Your task to perform on an android device: turn on javascript in the chrome app Image 0: 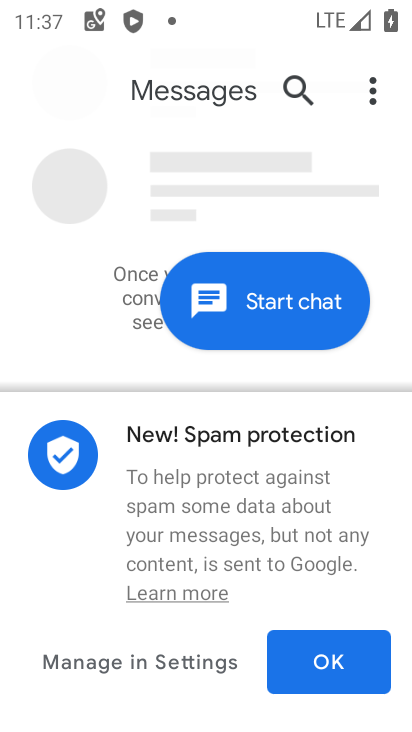
Step 0: press home button
Your task to perform on an android device: turn on javascript in the chrome app Image 1: 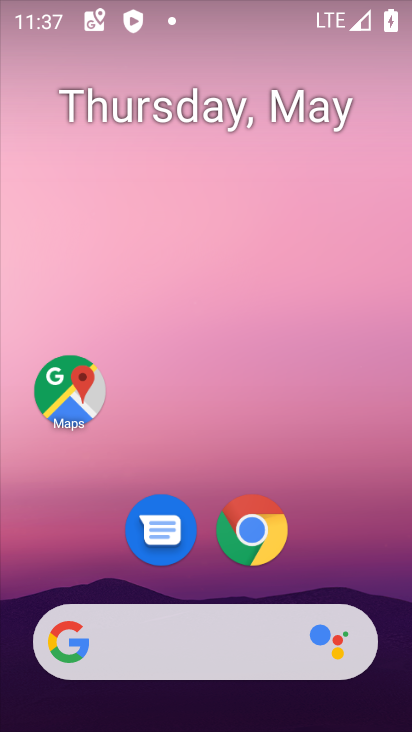
Step 1: click (259, 533)
Your task to perform on an android device: turn on javascript in the chrome app Image 2: 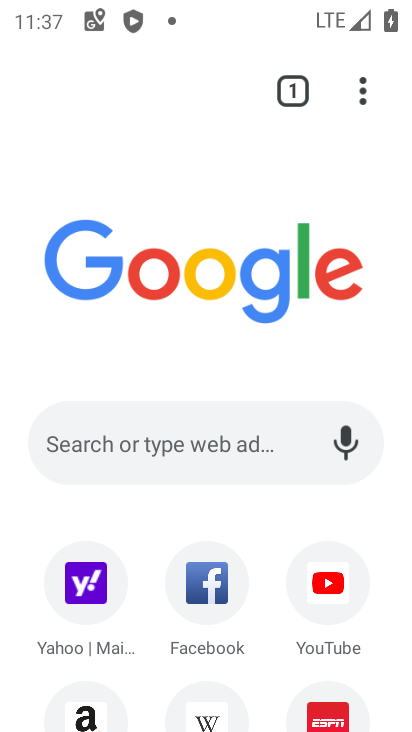
Step 2: click (359, 107)
Your task to perform on an android device: turn on javascript in the chrome app Image 3: 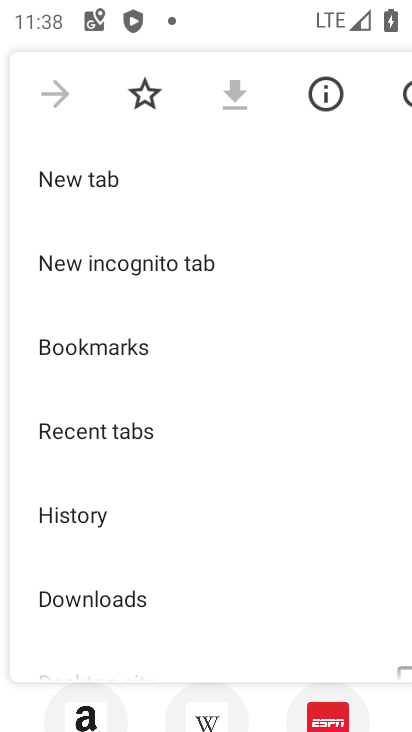
Step 3: drag from (243, 565) to (251, 6)
Your task to perform on an android device: turn on javascript in the chrome app Image 4: 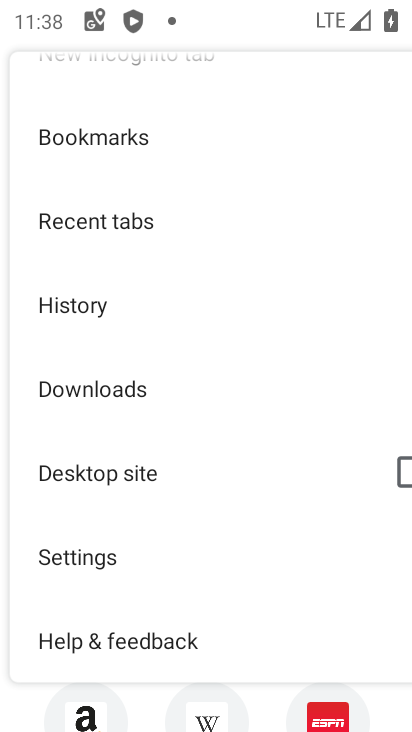
Step 4: click (98, 548)
Your task to perform on an android device: turn on javascript in the chrome app Image 5: 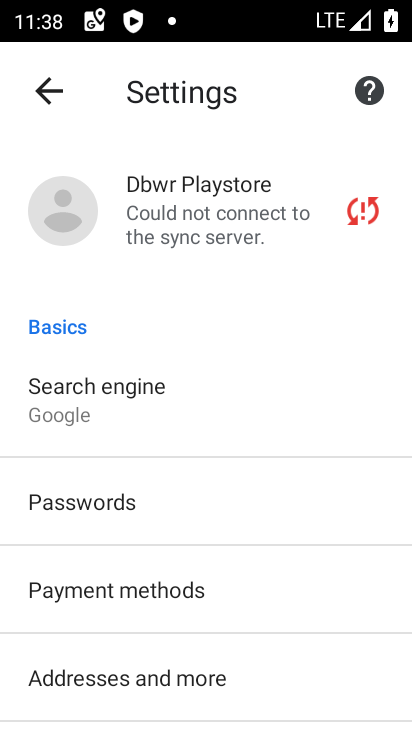
Step 5: drag from (291, 614) to (255, 116)
Your task to perform on an android device: turn on javascript in the chrome app Image 6: 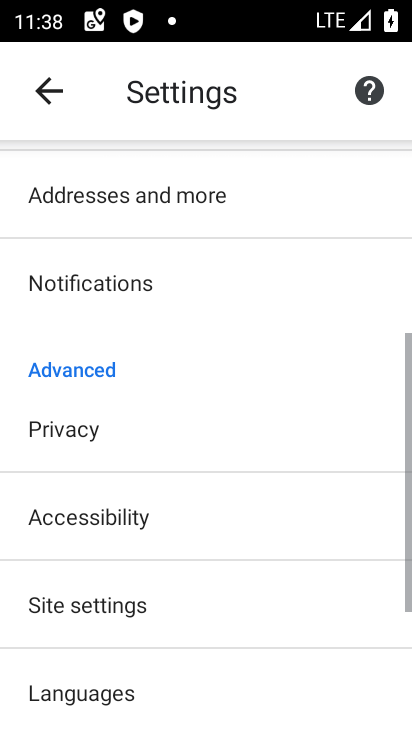
Step 6: click (108, 612)
Your task to perform on an android device: turn on javascript in the chrome app Image 7: 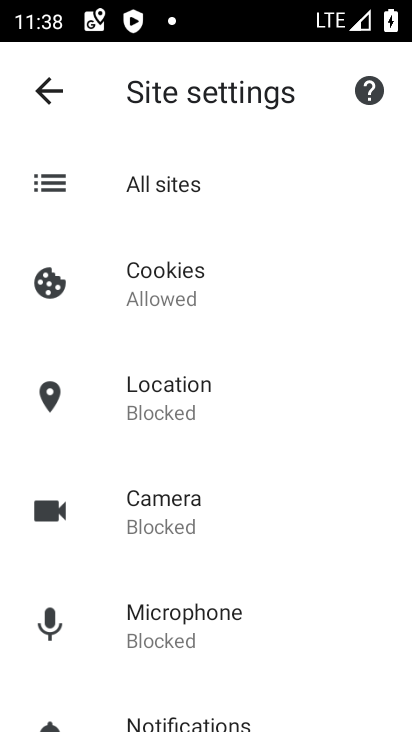
Step 7: drag from (286, 700) to (305, 380)
Your task to perform on an android device: turn on javascript in the chrome app Image 8: 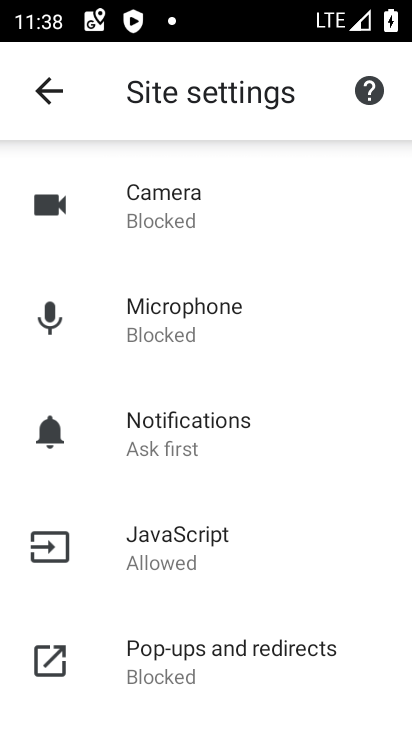
Step 8: click (191, 548)
Your task to perform on an android device: turn on javascript in the chrome app Image 9: 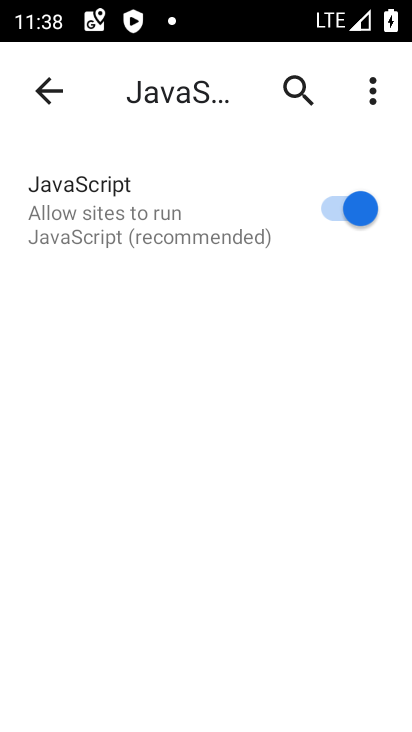
Step 9: task complete